Your task to perform on an android device: install app "Booking.com: Hotels and more" Image 0: 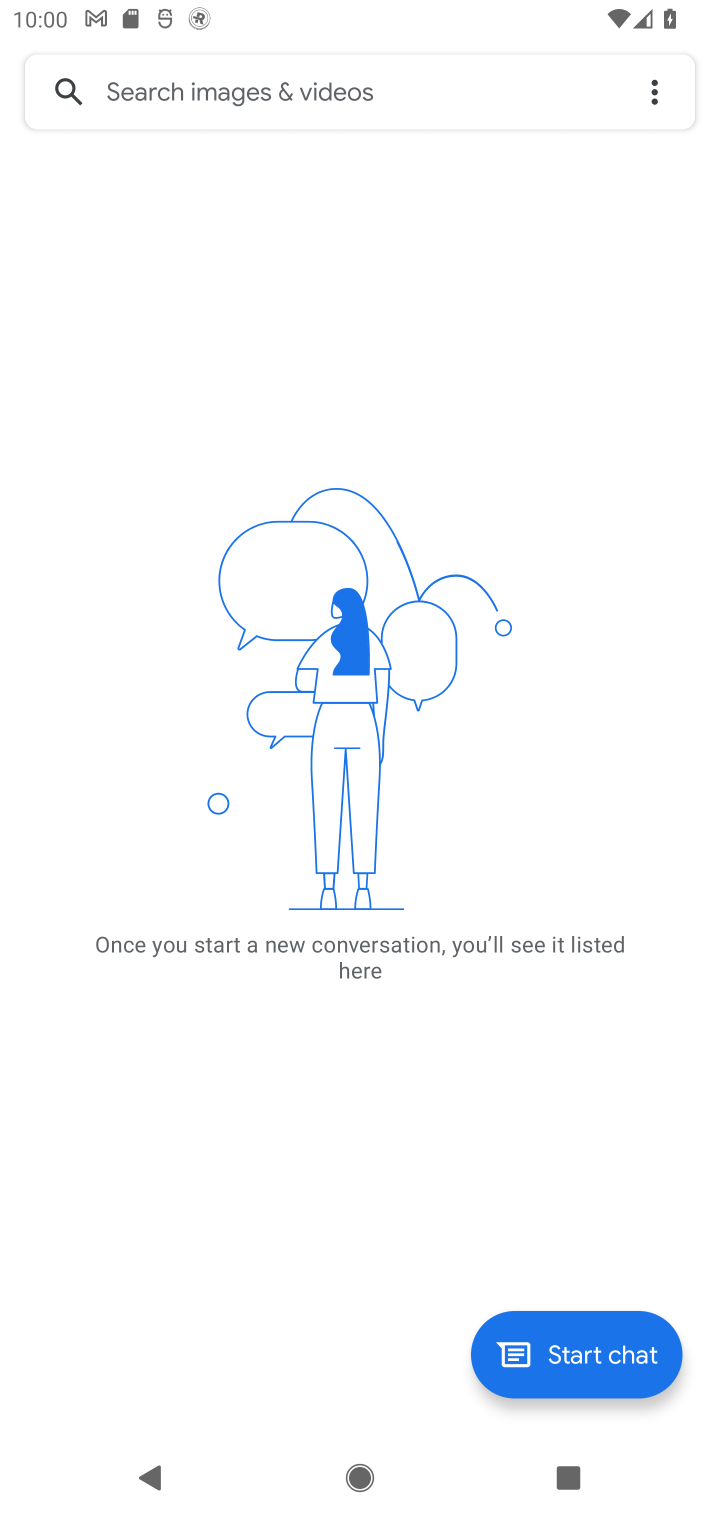
Step 0: press home button
Your task to perform on an android device: install app "Booking.com: Hotels and more" Image 1: 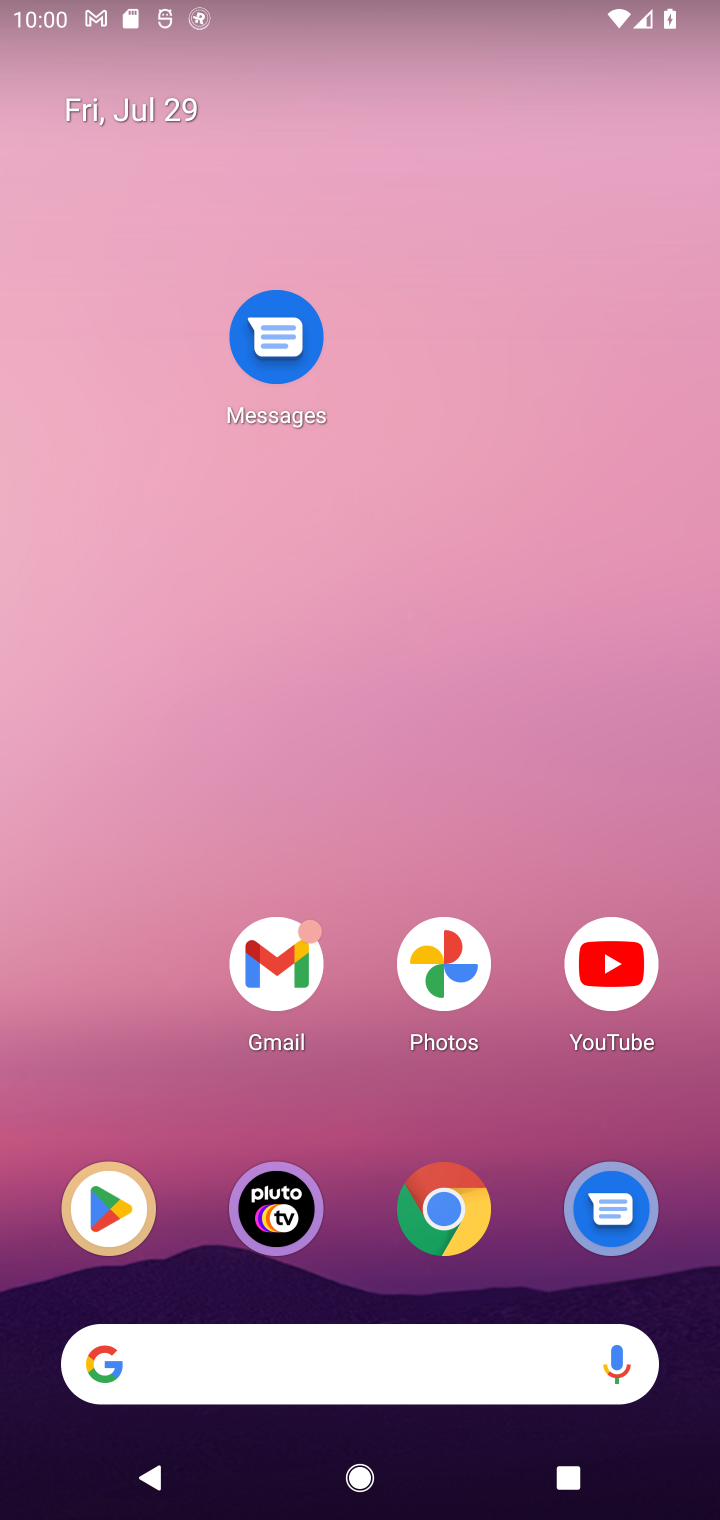
Step 1: drag from (350, 1327) to (524, 100)
Your task to perform on an android device: install app "Booking.com: Hotels and more" Image 2: 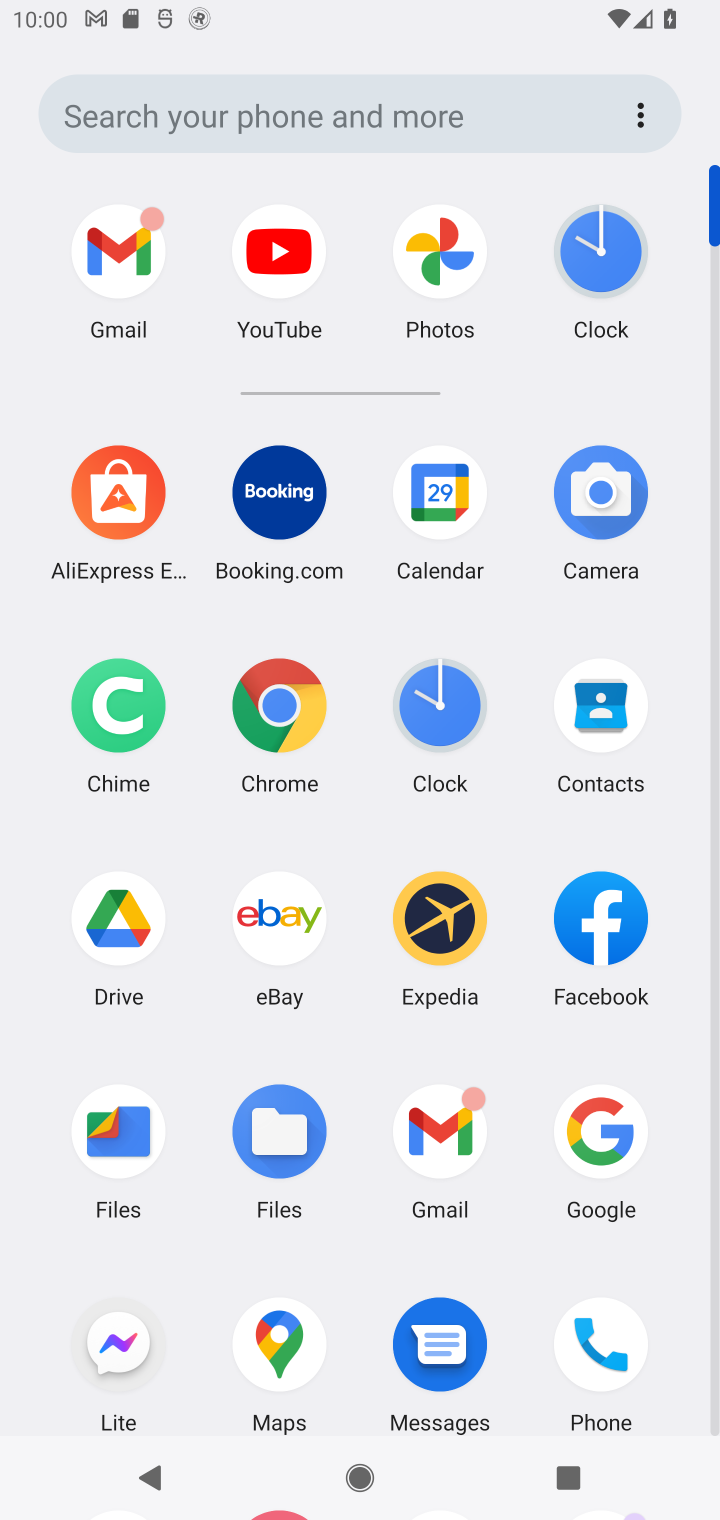
Step 2: drag from (342, 1257) to (419, 662)
Your task to perform on an android device: install app "Booking.com: Hotels and more" Image 3: 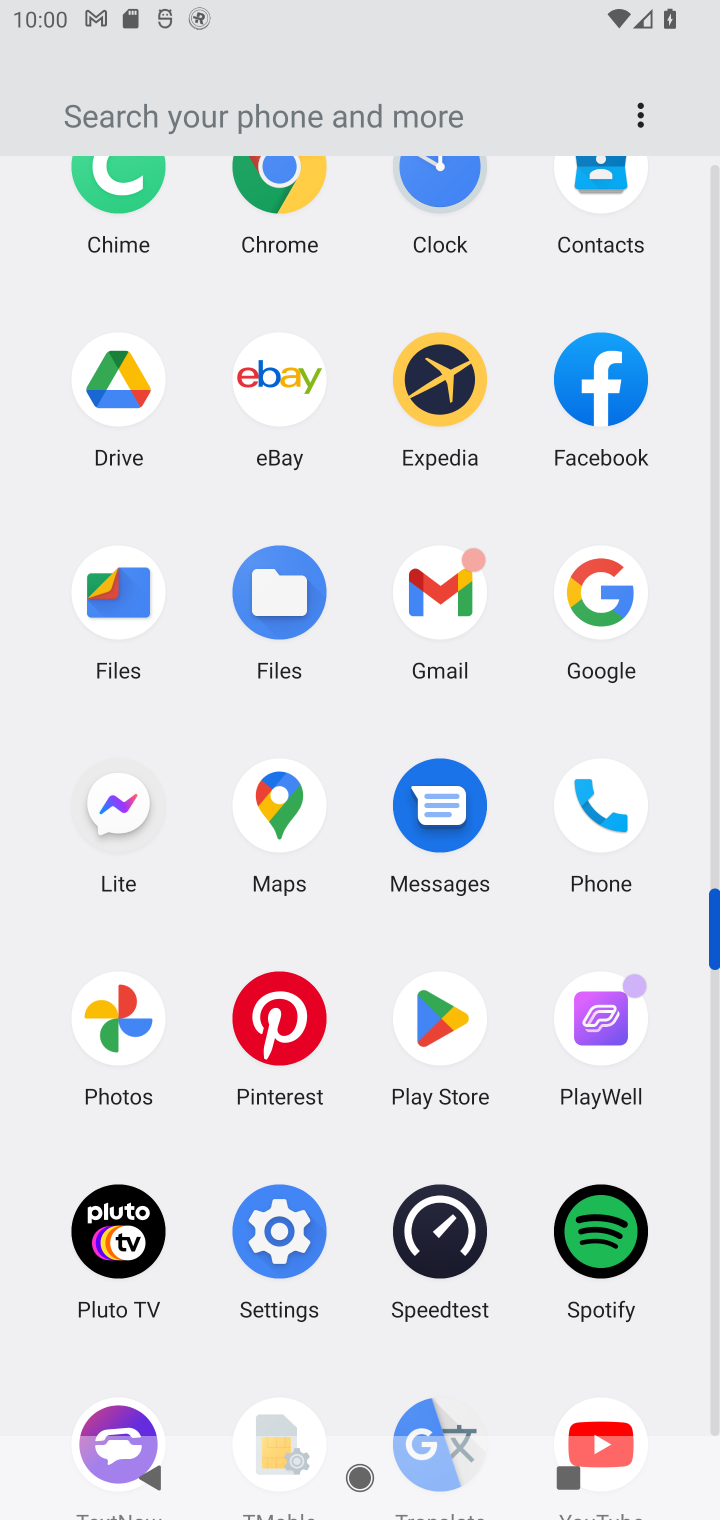
Step 3: click (438, 1027)
Your task to perform on an android device: install app "Booking.com: Hotels and more" Image 4: 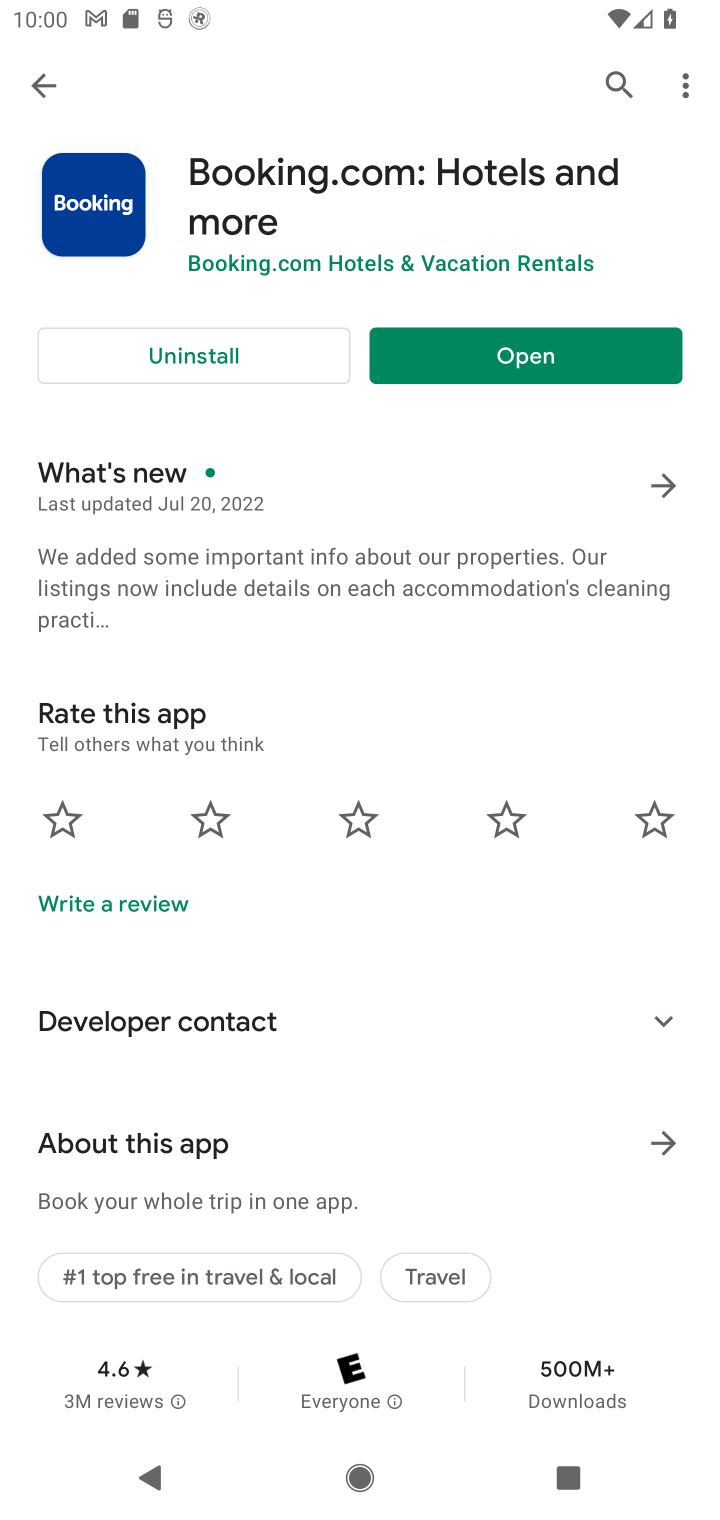
Step 4: task complete